Your task to perform on an android device: Check the news Image 0: 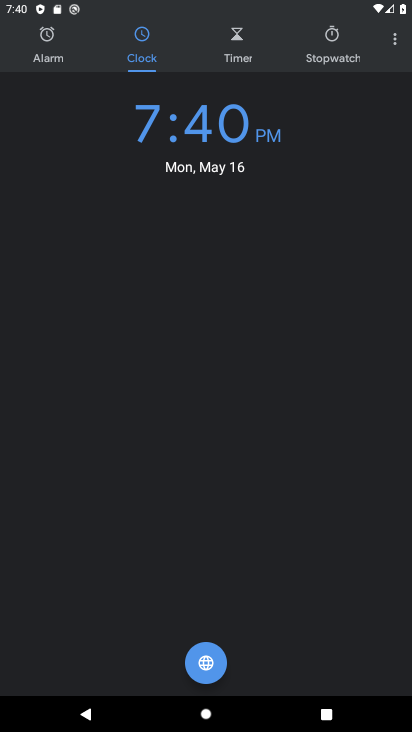
Step 0: drag from (267, 619) to (214, 179)
Your task to perform on an android device: Check the news Image 1: 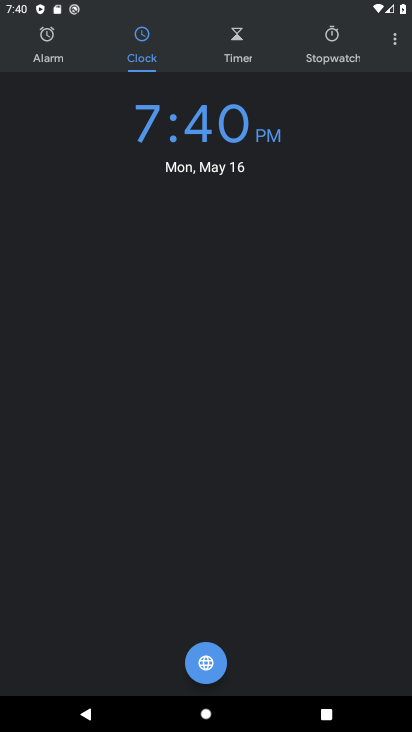
Step 1: press back button
Your task to perform on an android device: Check the news Image 2: 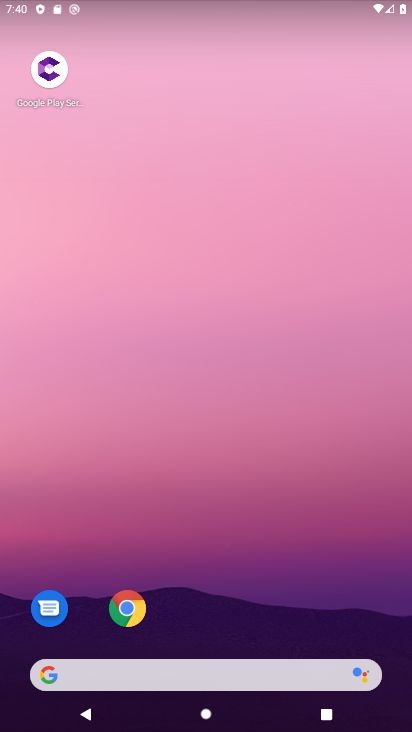
Step 2: drag from (281, 619) to (200, 257)
Your task to perform on an android device: Check the news Image 3: 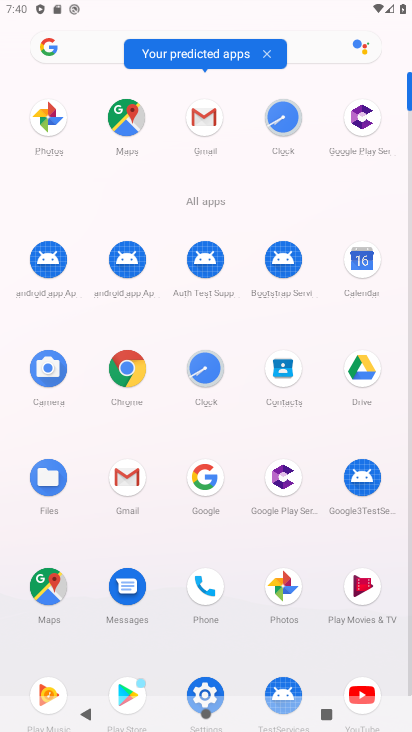
Step 3: click (203, 475)
Your task to perform on an android device: Check the news Image 4: 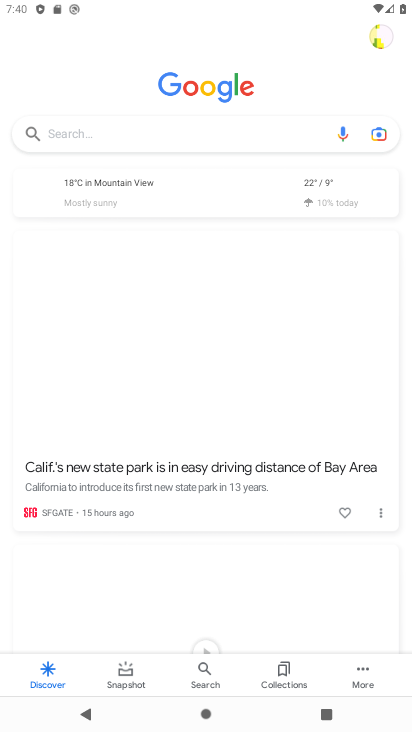
Step 4: click (168, 140)
Your task to perform on an android device: Check the news Image 5: 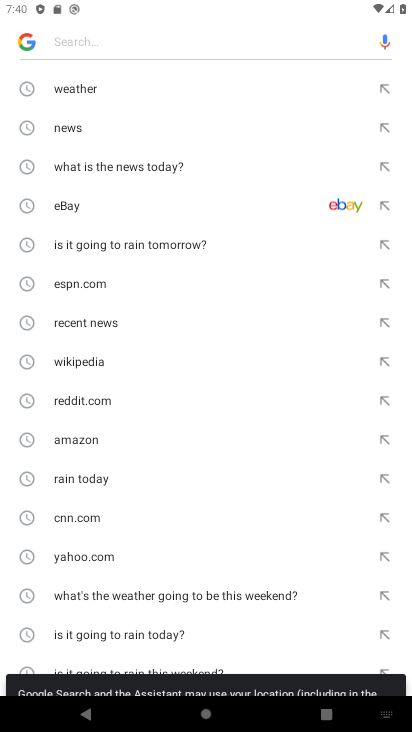
Step 5: click (63, 122)
Your task to perform on an android device: Check the news Image 6: 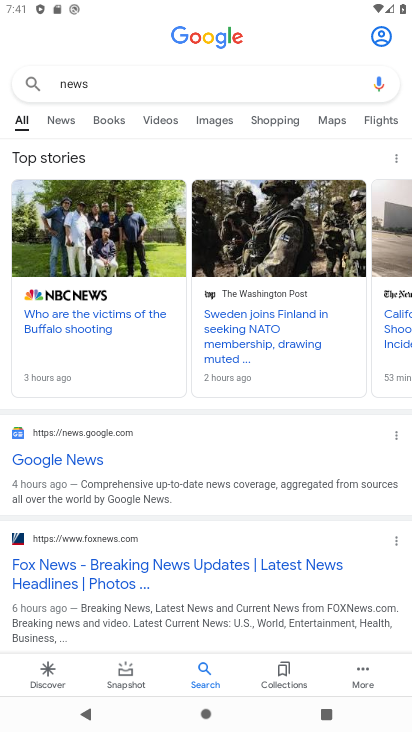
Step 6: task complete